Your task to perform on an android device: empty trash in the gmail app Image 0: 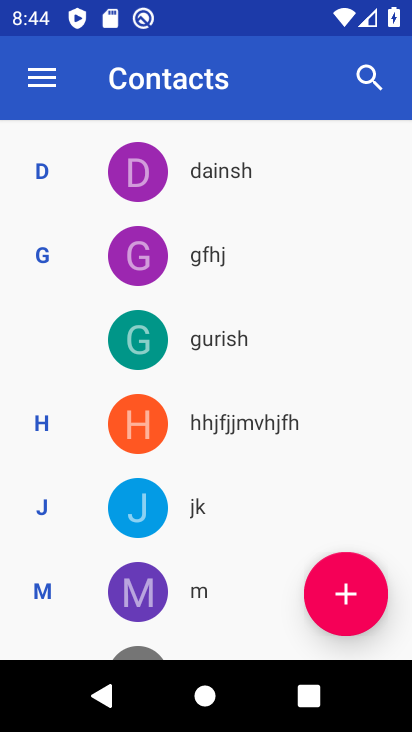
Step 0: press home button
Your task to perform on an android device: empty trash in the gmail app Image 1: 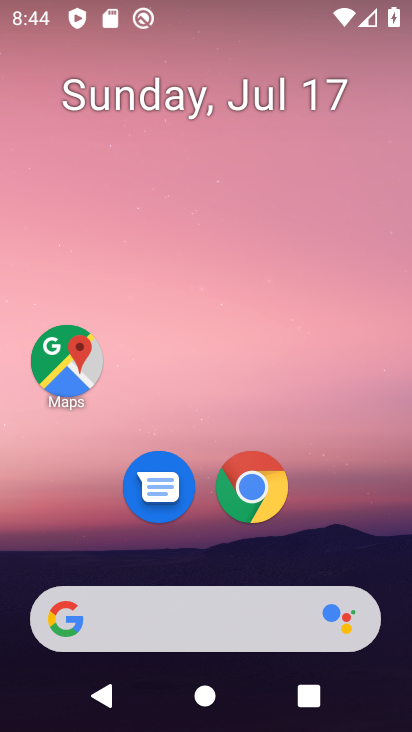
Step 1: drag from (343, 547) to (303, 24)
Your task to perform on an android device: empty trash in the gmail app Image 2: 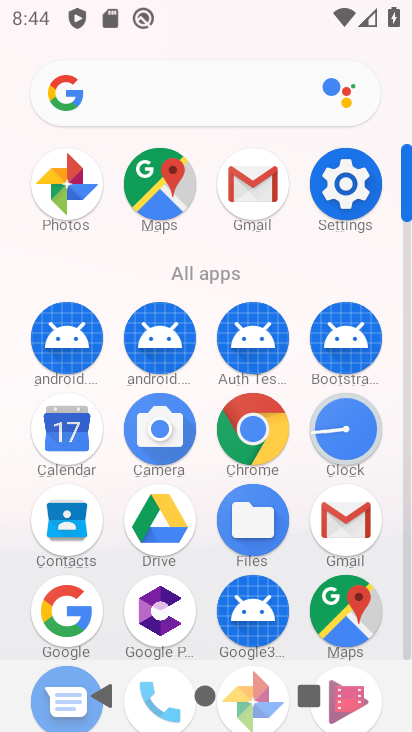
Step 2: click (253, 176)
Your task to perform on an android device: empty trash in the gmail app Image 3: 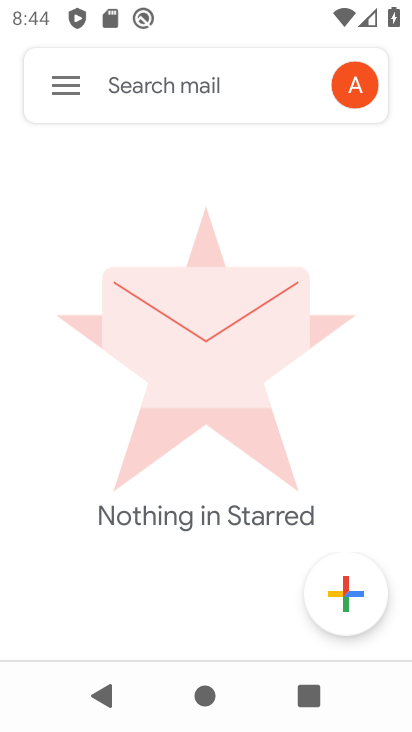
Step 3: click (59, 90)
Your task to perform on an android device: empty trash in the gmail app Image 4: 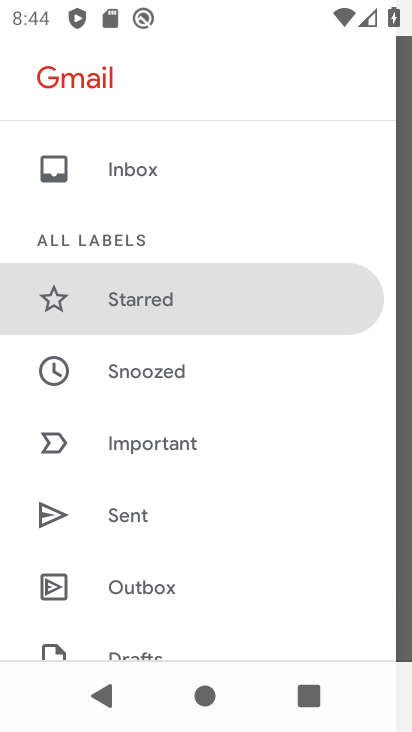
Step 4: drag from (197, 622) to (191, 318)
Your task to perform on an android device: empty trash in the gmail app Image 5: 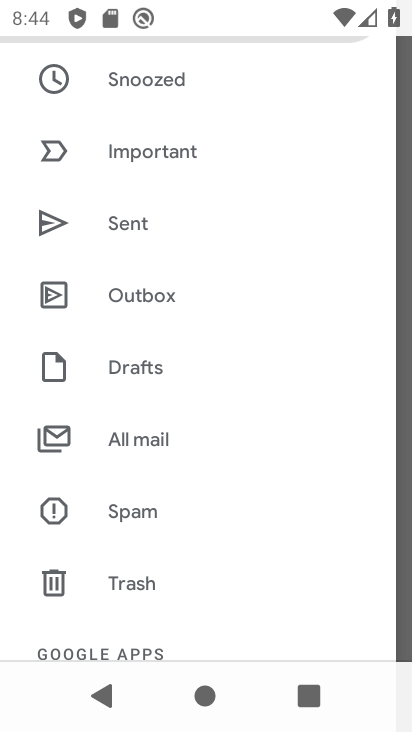
Step 5: click (142, 586)
Your task to perform on an android device: empty trash in the gmail app Image 6: 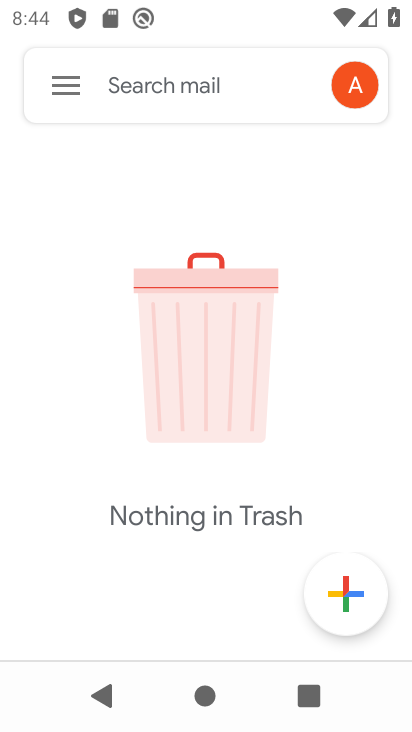
Step 6: task complete